Your task to perform on an android device: toggle pop-ups in chrome Image 0: 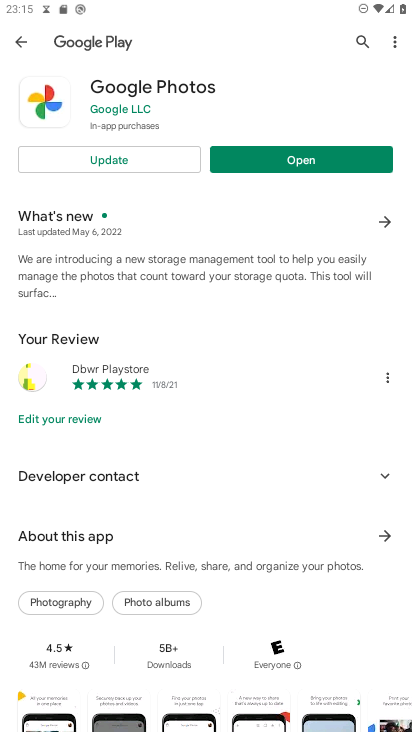
Step 0: press home button
Your task to perform on an android device: toggle pop-ups in chrome Image 1: 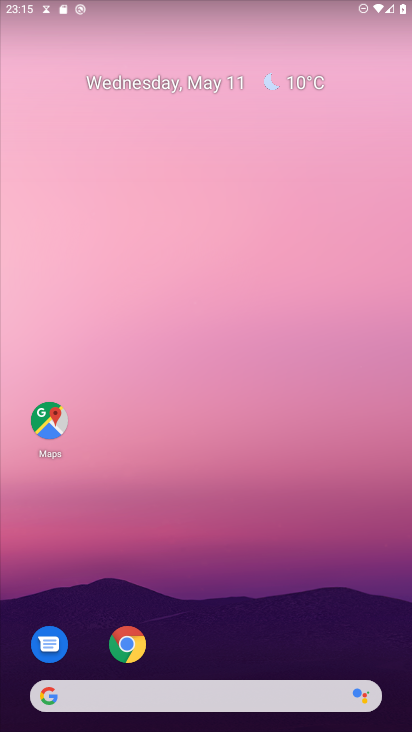
Step 1: click (128, 650)
Your task to perform on an android device: toggle pop-ups in chrome Image 2: 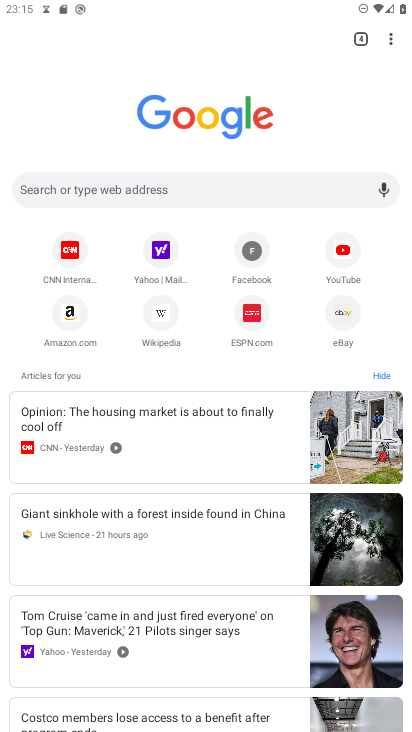
Step 2: click (392, 40)
Your task to perform on an android device: toggle pop-ups in chrome Image 3: 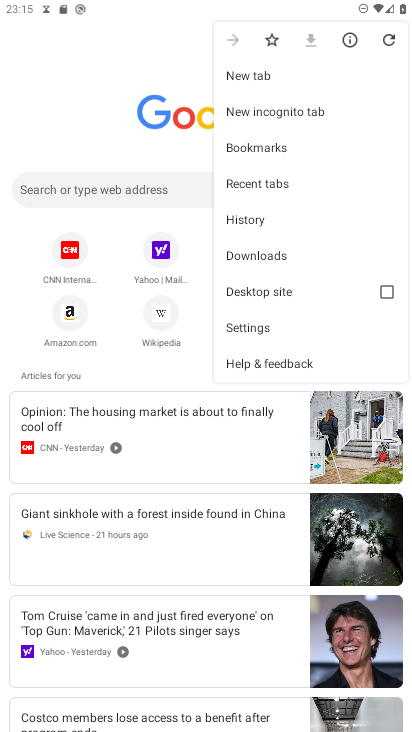
Step 3: click (247, 328)
Your task to perform on an android device: toggle pop-ups in chrome Image 4: 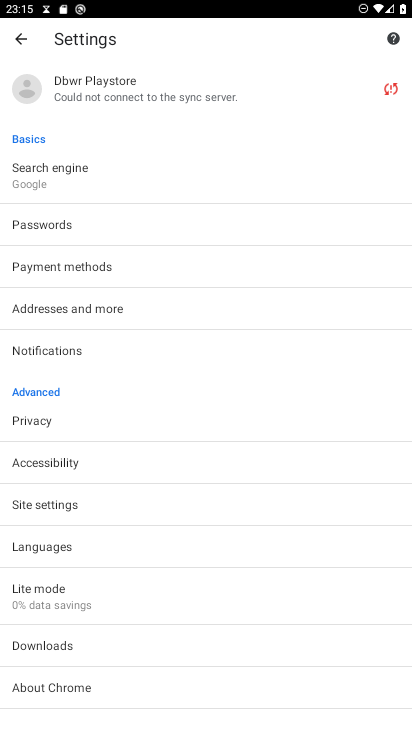
Step 4: click (73, 501)
Your task to perform on an android device: toggle pop-ups in chrome Image 5: 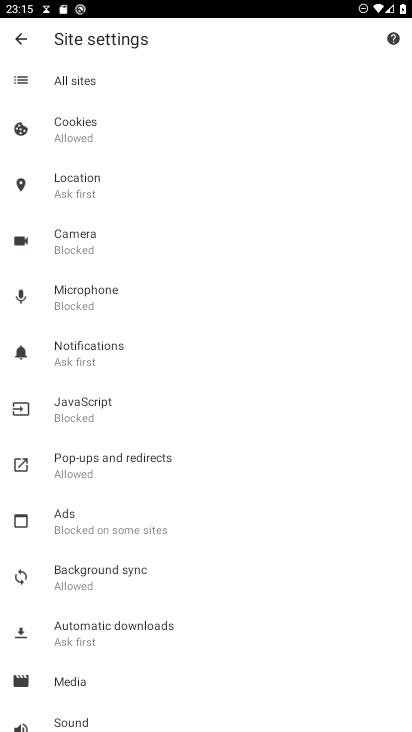
Step 5: click (79, 470)
Your task to perform on an android device: toggle pop-ups in chrome Image 6: 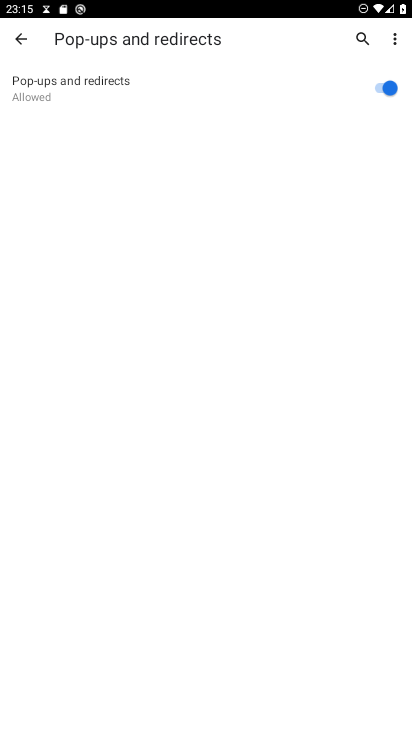
Step 6: click (394, 89)
Your task to perform on an android device: toggle pop-ups in chrome Image 7: 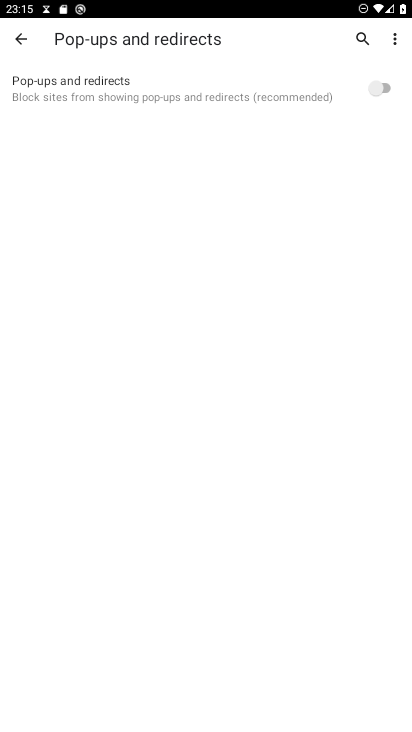
Step 7: task complete